Your task to perform on an android device: Open accessibility settings Image 0: 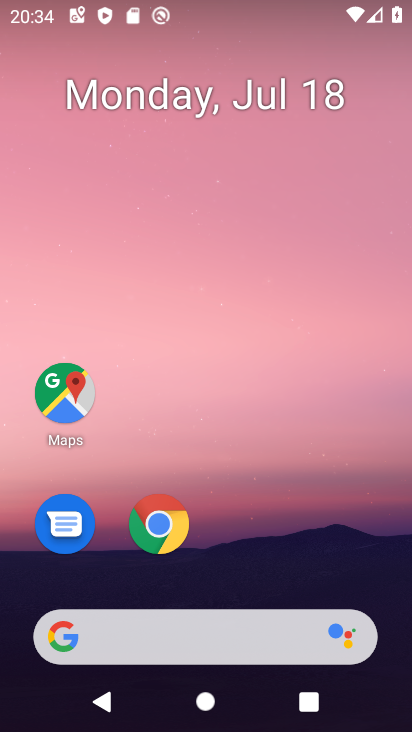
Step 0: drag from (308, 571) to (286, 95)
Your task to perform on an android device: Open accessibility settings Image 1: 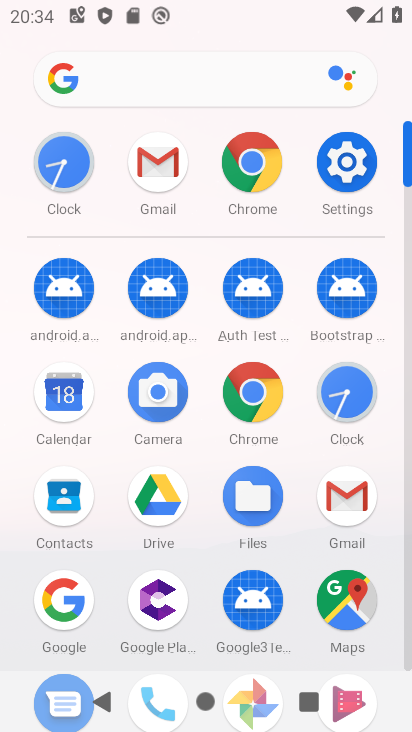
Step 1: click (346, 156)
Your task to perform on an android device: Open accessibility settings Image 2: 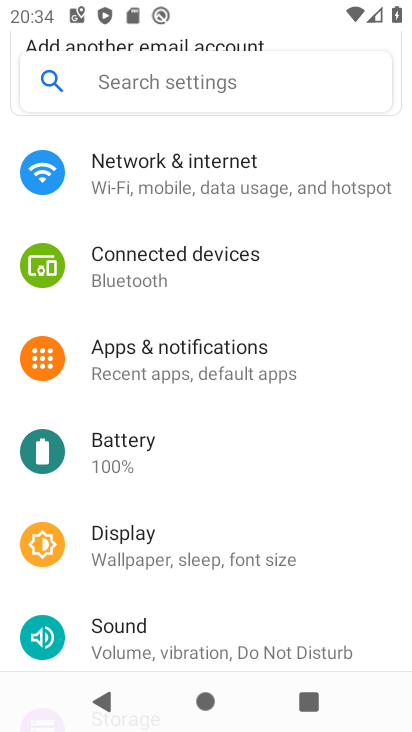
Step 2: drag from (212, 576) to (285, 130)
Your task to perform on an android device: Open accessibility settings Image 3: 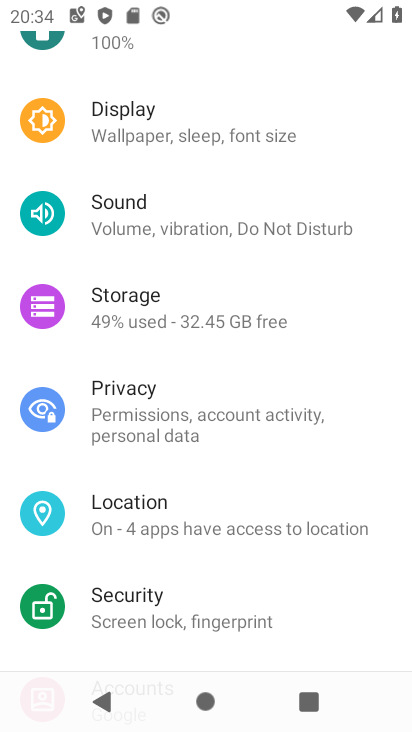
Step 3: drag from (215, 573) to (249, 100)
Your task to perform on an android device: Open accessibility settings Image 4: 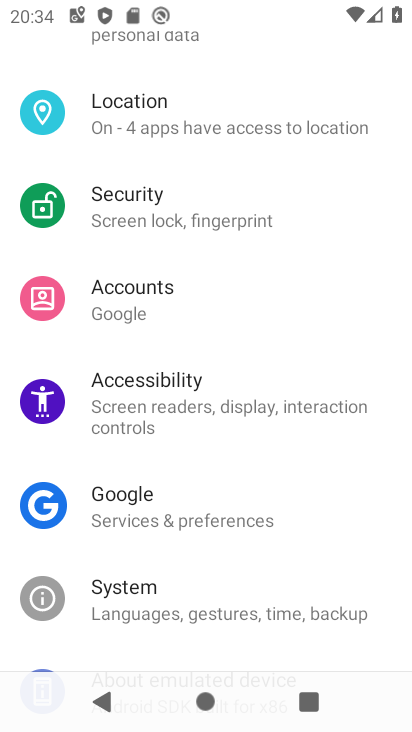
Step 4: click (211, 391)
Your task to perform on an android device: Open accessibility settings Image 5: 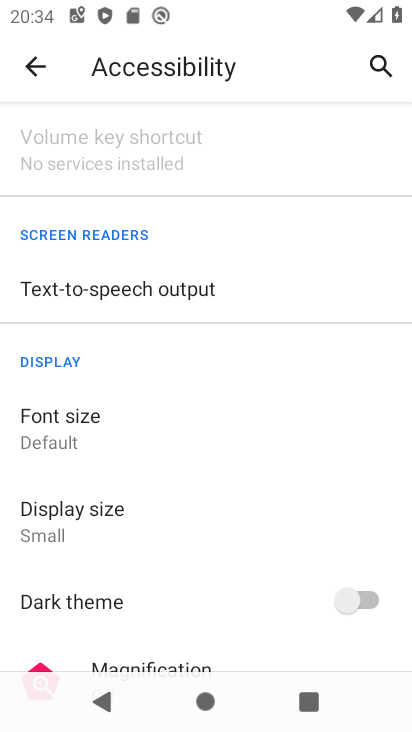
Step 5: task complete